Your task to perform on an android device: Open Chrome and go to settings Image 0: 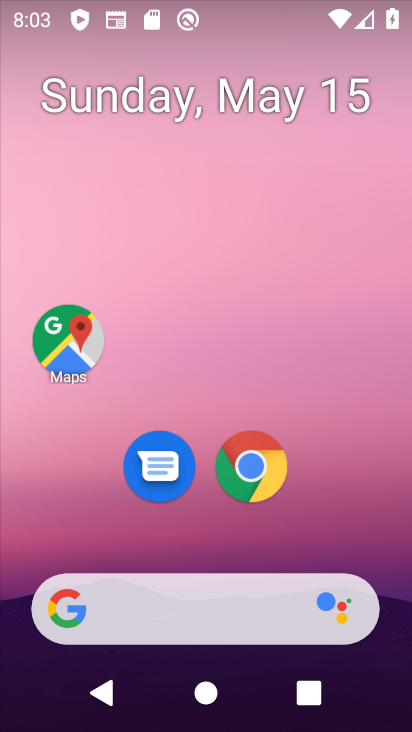
Step 0: click (275, 456)
Your task to perform on an android device: Open Chrome and go to settings Image 1: 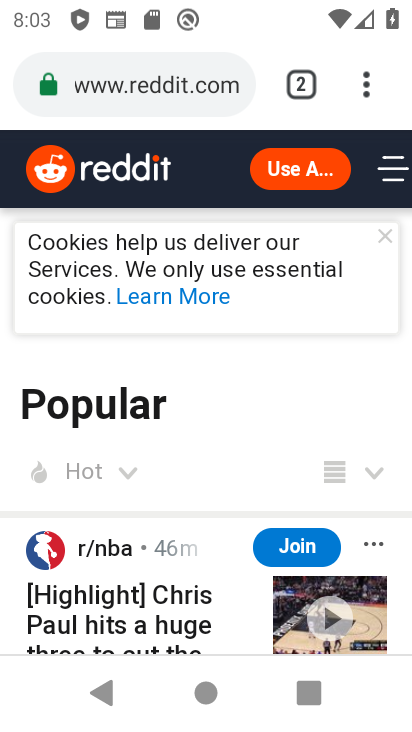
Step 1: click (370, 93)
Your task to perform on an android device: Open Chrome and go to settings Image 2: 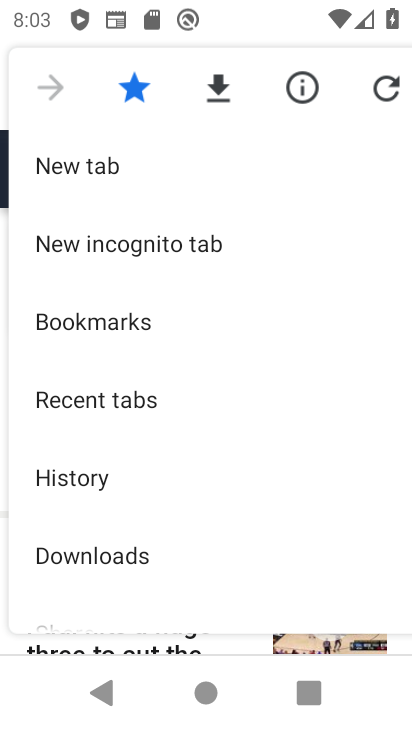
Step 2: drag from (299, 480) to (275, 43)
Your task to perform on an android device: Open Chrome and go to settings Image 3: 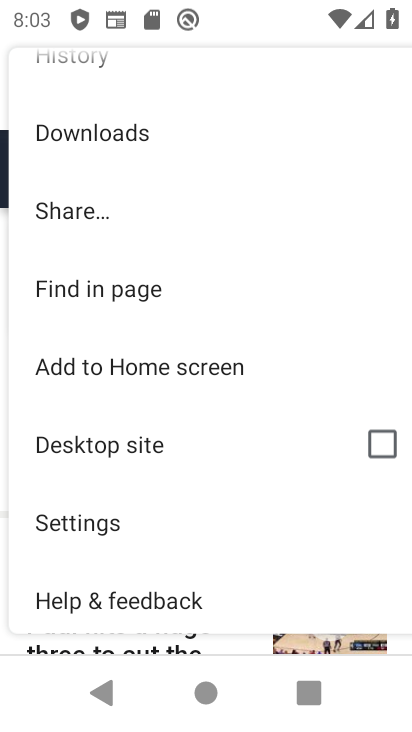
Step 3: click (72, 525)
Your task to perform on an android device: Open Chrome and go to settings Image 4: 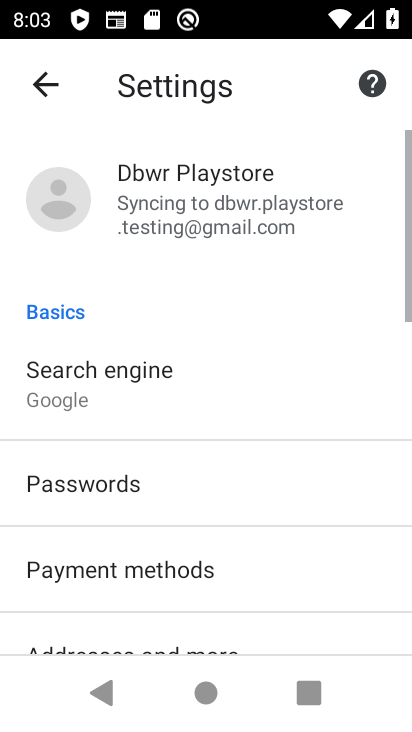
Step 4: task complete